Your task to perform on an android device: Search for usb-c to usb-a on target, select the first entry, and add it to the cart. Image 0: 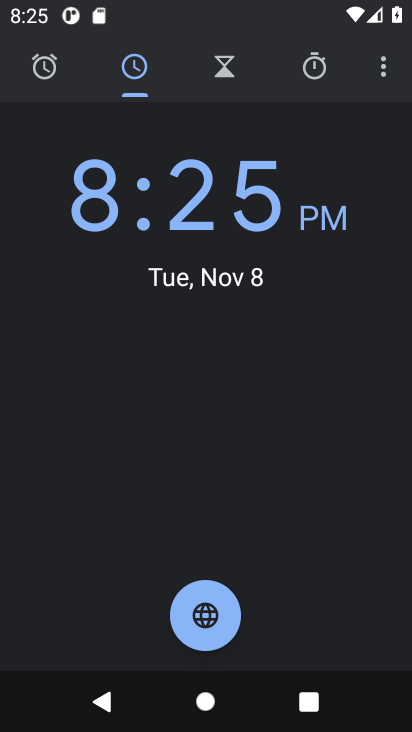
Step 0: press home button
Your task to perform on an android device: Search for usb-c to usb-a on target, select the first entry, and add it to the cart. Image 1: 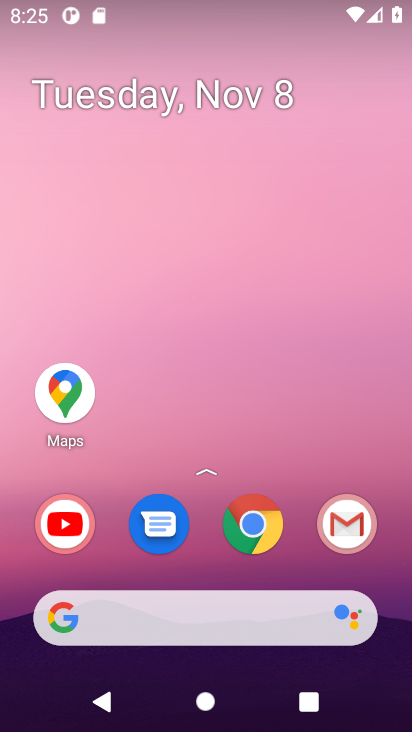
Step 1: click (265, 521)
Your task to perform on an android device: Search for usb-c to usb-a on target, select the first entry, and add it to the cart. Image 2: 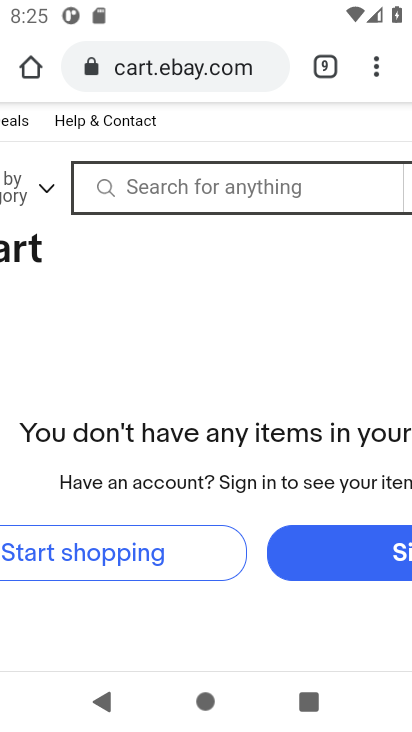
Step 2: click (200, 65)
Your task to perform on an android device: Search for usb-c to usb-a on target, select the first entry, and add it to the cart. Image 3: 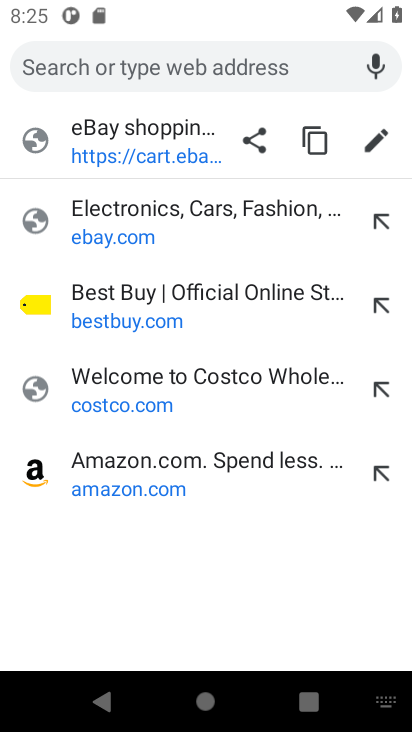
Step 3: type "target.com"
Your task to perform on an android device: Search for usb-c to usb-a on target, select the first entry, and add it to the cart. Image 4: 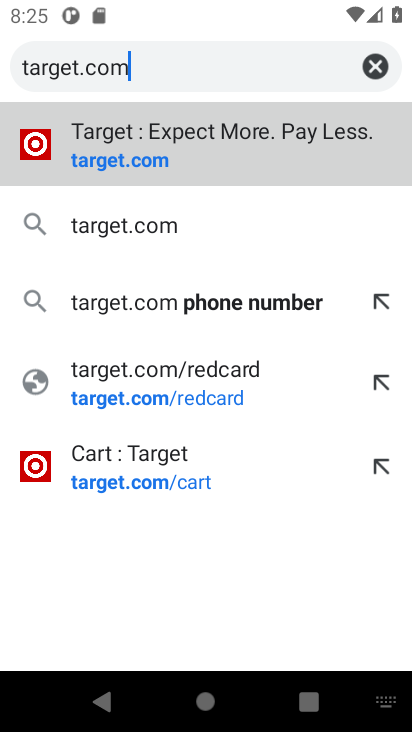
Step 4: click (111, 162)
Your task to perform on an android device: Search for usb-c to usb-a on target, select the first entry, and add it to the cart. Image 5: 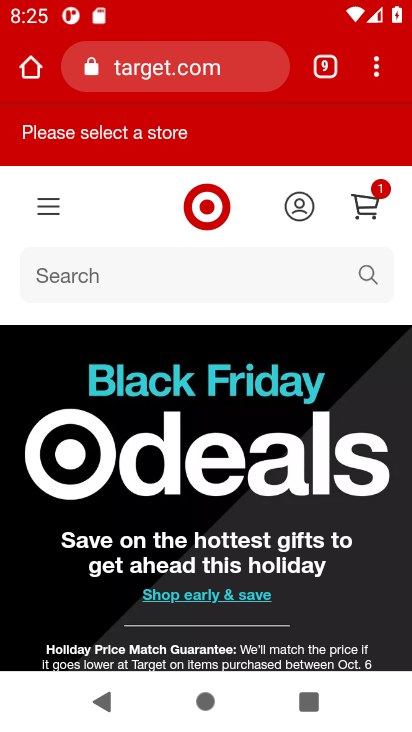
Step 5: click (375, 269)
Your task to perform on an android device: Search for usb-c to usb-a on target, select the first entry, and add it to the cart. Image 6: 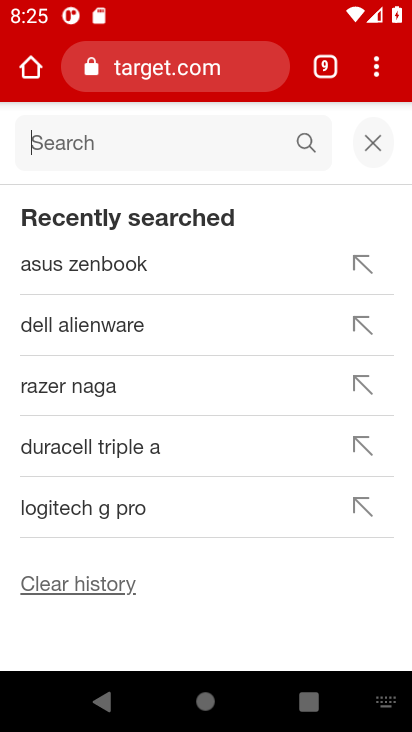
Step 6: type "usb-c to usb-a"
Your task to perform on an android device: Search for usb-c to usb-a on target, select the first entry, and add it to the cart. Image 7: 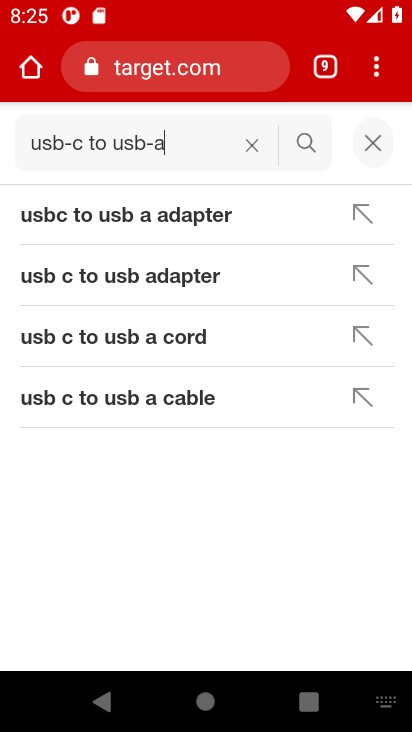
Step 7: click (303, 139)
Your task to perform on an android device: Search for usb-c to usb-a on target, select the first entry, and add it to the cart. Image 8: 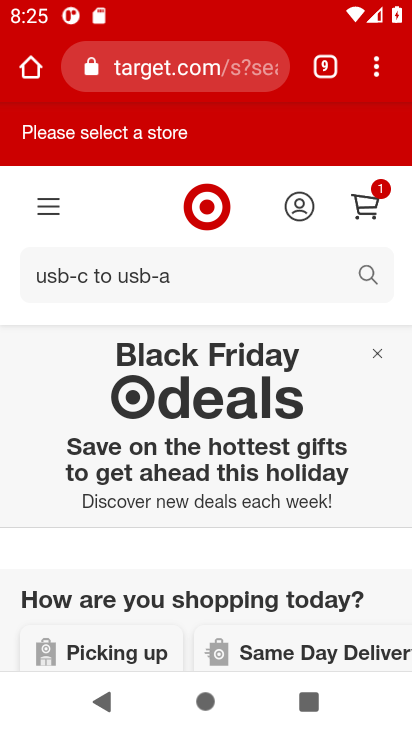
Step 8: drag from (191, 536) to (227, 265)
Your task to perform on an android device: Search for usb-c to usb-a on target, select the first entry, and add it to the cart. Image 9: 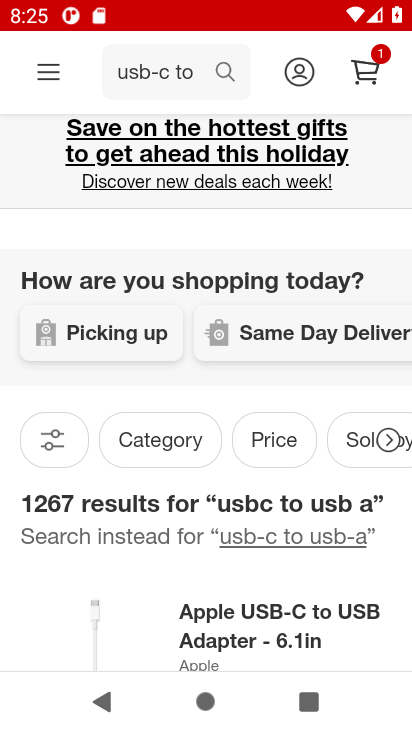
Step 9: drag from (159, 523) to (196, 287)
Your task to perform on an android device: Search for usb-c to usb-a on target, select the first entry, and add it to the cart. Image 10: 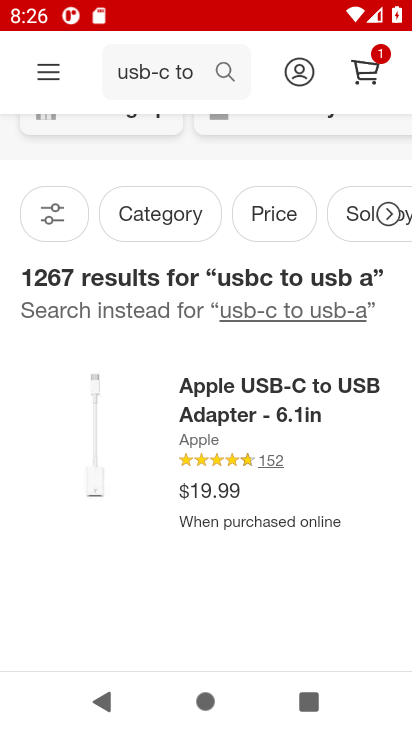
Step 10: drag from (175, 487) to (194, 363)
Your task to perform on an android device: Search for usb-c to usb-a on target, select the first entry, and add it to the cart. Image 11: 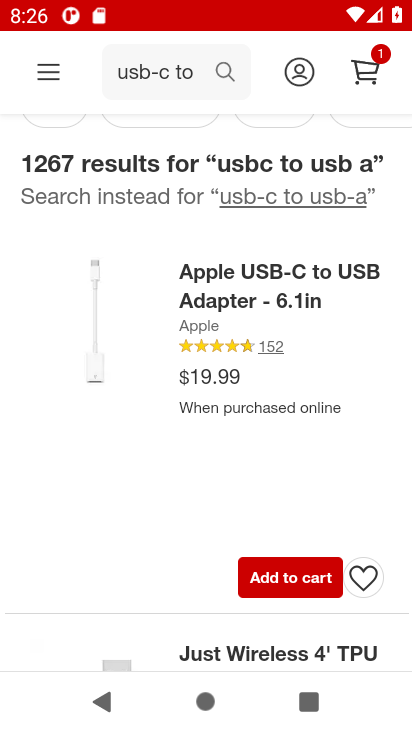
Step 11: click (164, 318)
Your task to perform on an android device: Search for usb-c to usb-a on target, select the first entry, and add it to the cart. Image 12: 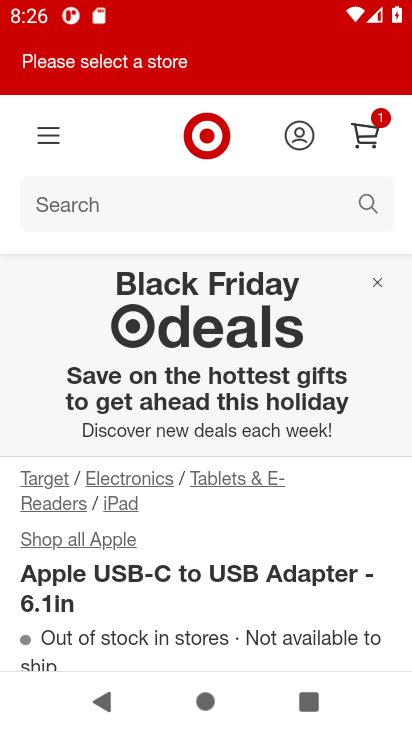
Step 12: task complete